Your task to perform on an android device: open the mobile data screen to see how much data has been used Image 0: 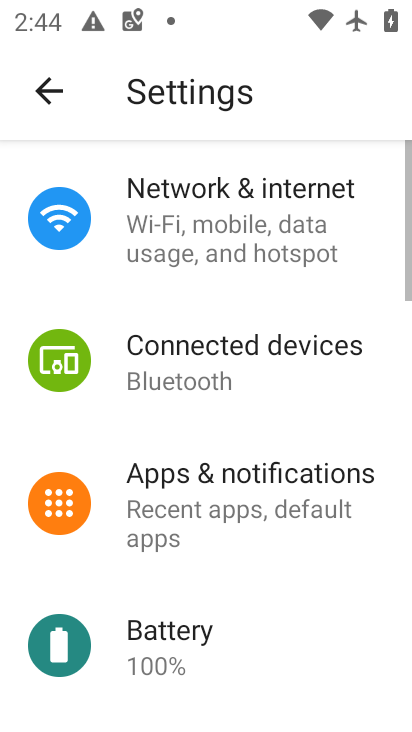
Step 0: press home button
Your task to perform on an android device: open the mobile data screen to see how much data has been used Image 1: 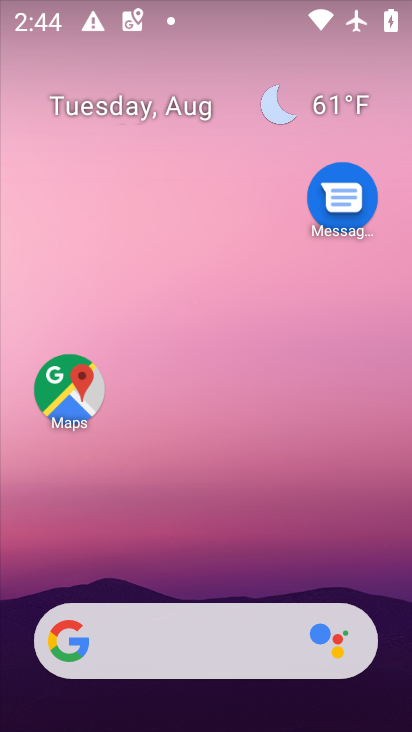
Step 1: drag from (218, 600) to (211, 124)
Your task to perform on an android device: open the mobile data screen to see how much data has been used Image 2: 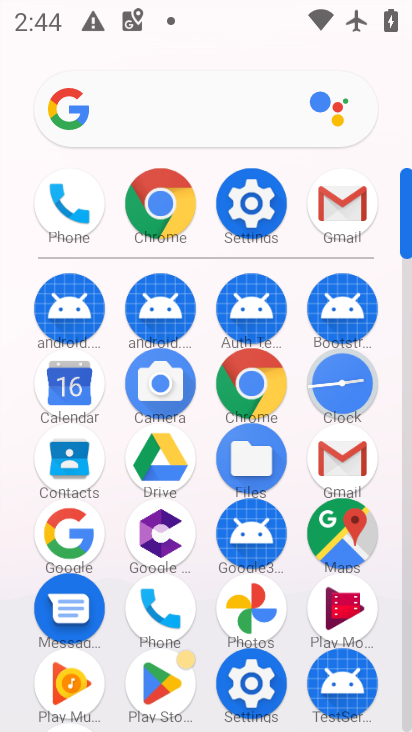
Step 2: click (253, 192)
Your task to perform on an android device: open the mobile data screen to see how much data has been used Image 3: 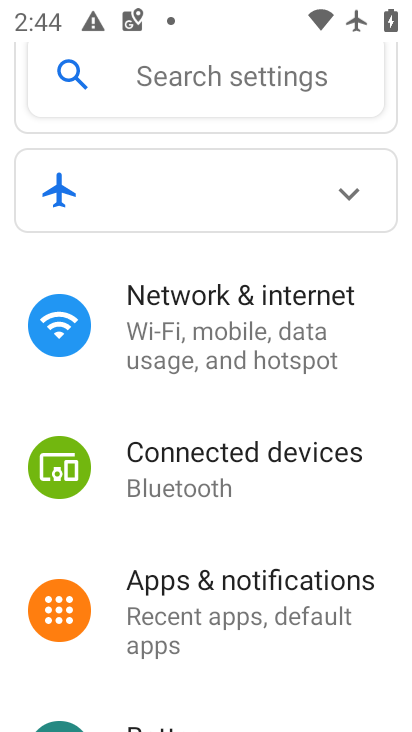
Step 3: click (275, 334)
Your task to perform on an android device: open the mobile data screen to see how much data has been used Image 4: 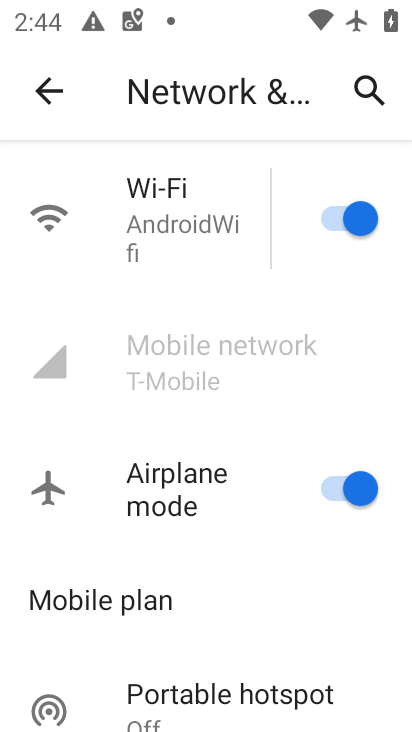
Step 4: click (359, 475)
Your task to perform on an android device: open the mobile data screen to see how much data has been used Image 5: 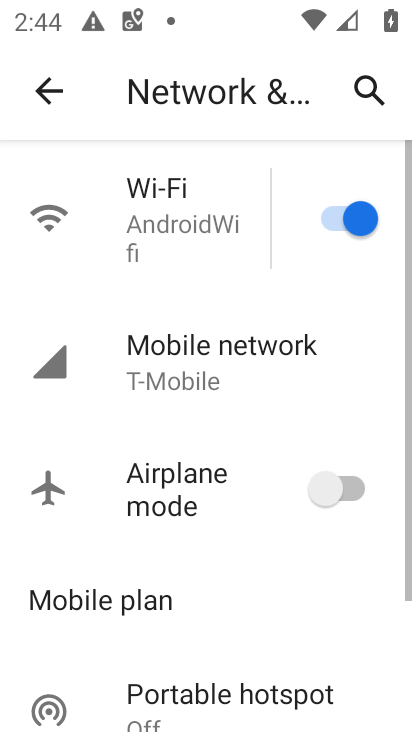
Step 5: click (161, 362)
Your task to perform on an android device: open the mobile data screen to see how much data has been used Image 6: 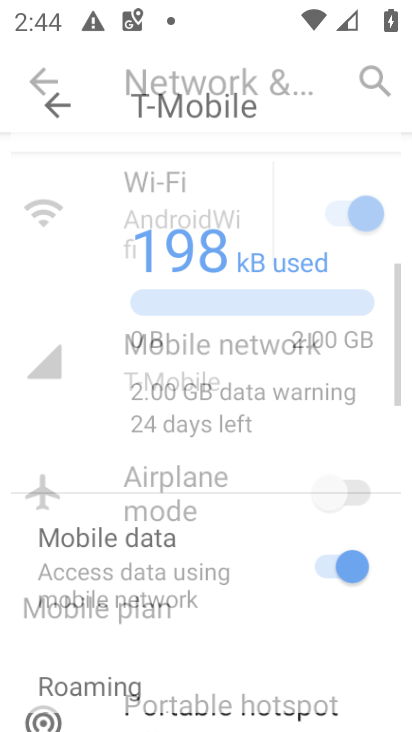
Step 6: task complete